Your task to perform on an android device: empty trash in google photos Image 0: 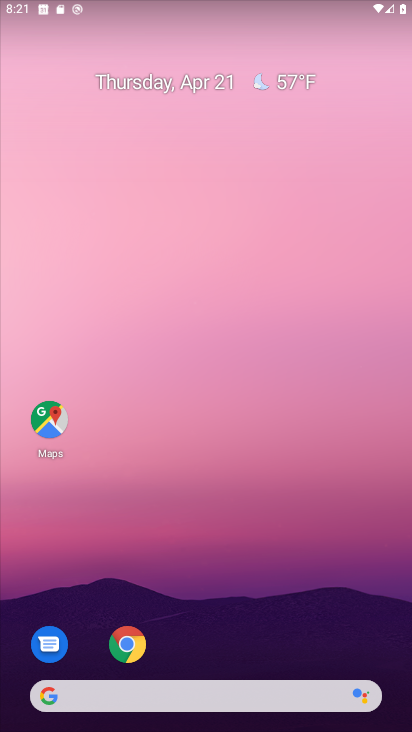
Step 0: drag from (226, 637) to (215, 79)
Your task to perform on an android device: empty trash in google photos Image 1: 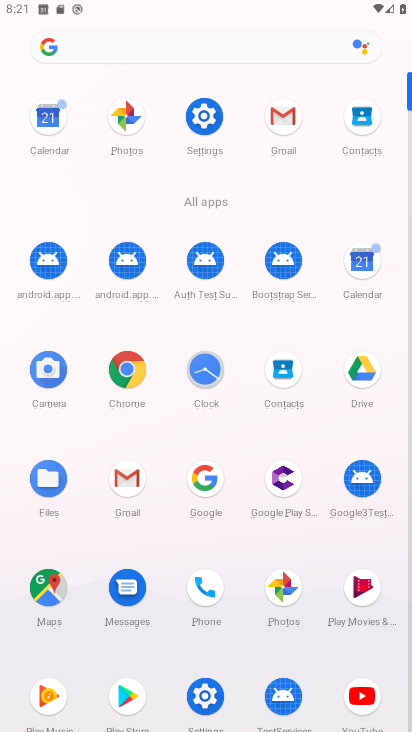
Step 1: click (289, 586)
Your task to perform on an android device: empty trash in google photos Image 2: 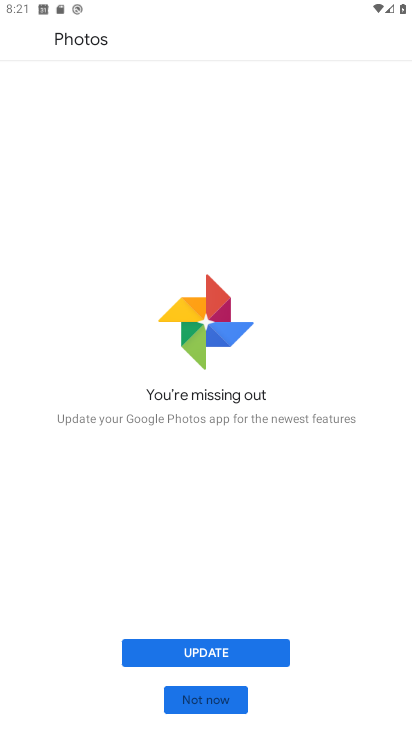
Step 2: click (221, 653)
Your task to perform on an android device: empty trash in google photos Image 3: 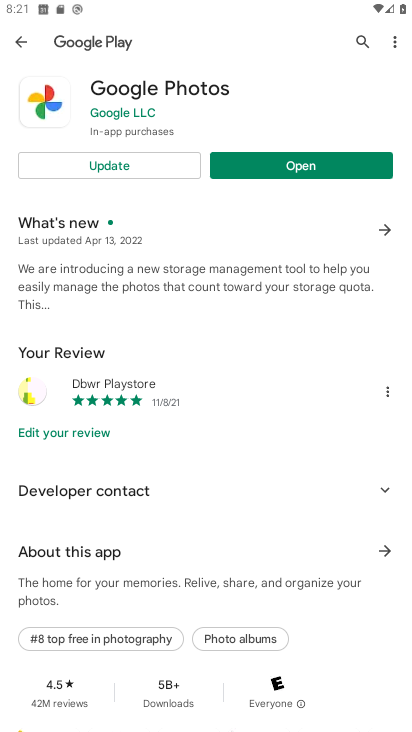
Step 3: click (137, 160)
Your task to perform on an android device: empty trash in google photos Image 4: 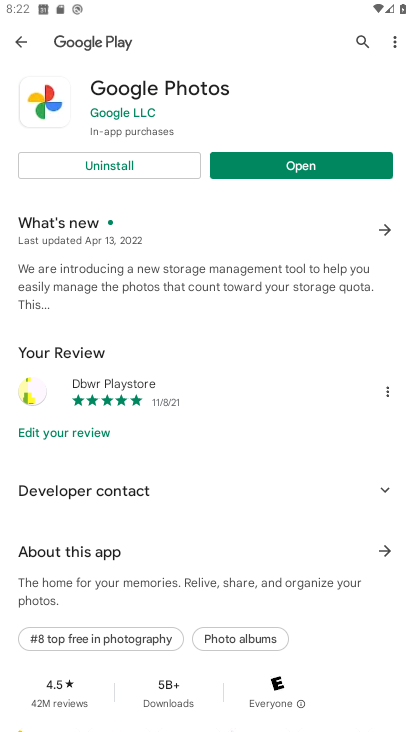
Step 4: click (344, 171)
Your task to perform on an android device: empty trash in google photos Image 5: 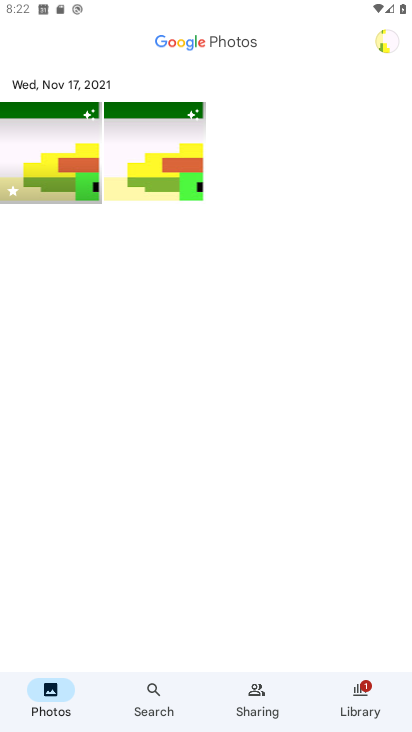
Step 5: click (362, 701)
Your task to perform on an android device: empty trash in google photos Image 6: 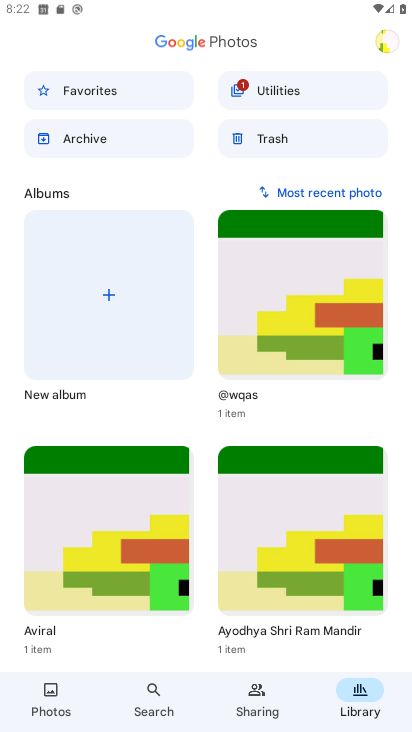
Step 6: click (264, 132)
Your task to perform on an android device: empty trash in google photos Image 7: 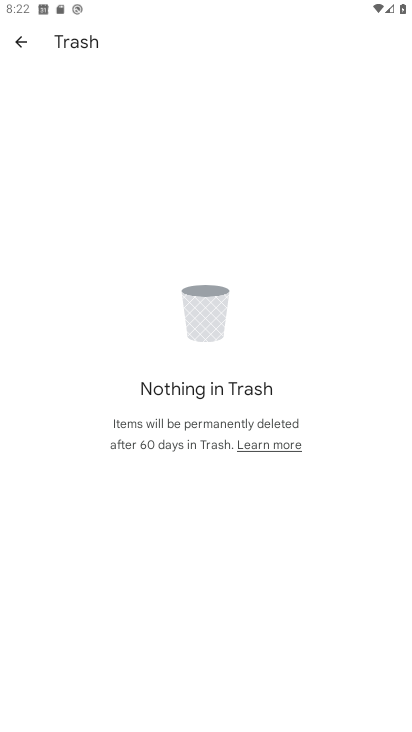
Step 7: task complete